Your task to perform on an android device: Search for a dining table on crateandbarrel.com Image 0: 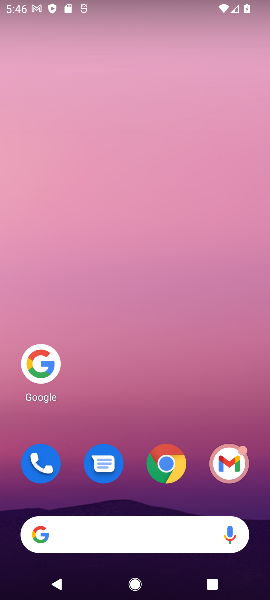
Step 0: click (37, 355)
Your task to perform on an android device: Search for a dining table on crateandbarrel.com Image 1: 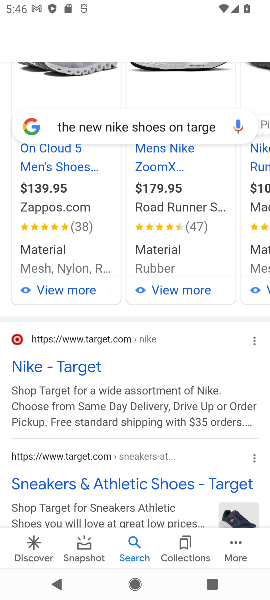
Step 1: task complete